Your task to perform on an android device: Open eBay Image 0: 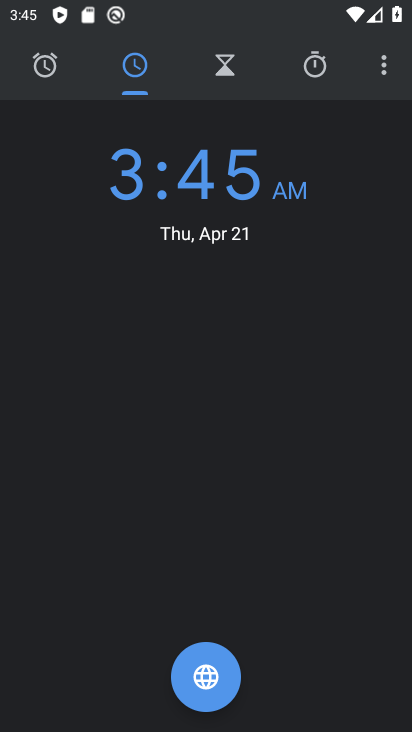
Step 0: press home button
Your task to perform on an android device: Open eBay Image 1: 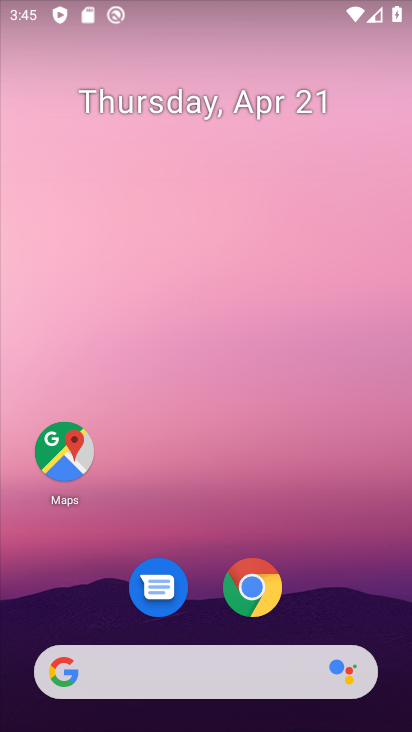
Step 1: drag from (236, 342) to (146, 46)
Your task to perform on an android device: Open eBay Image 2: 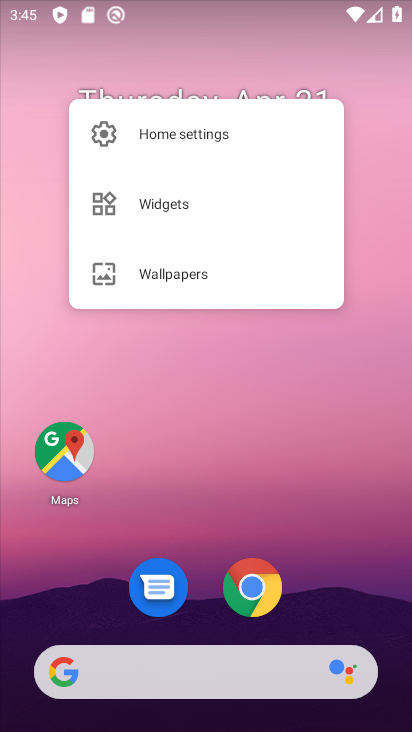
Step 2: click (257, 459)
Your task to perform on an android device: Open eBay Image 3: 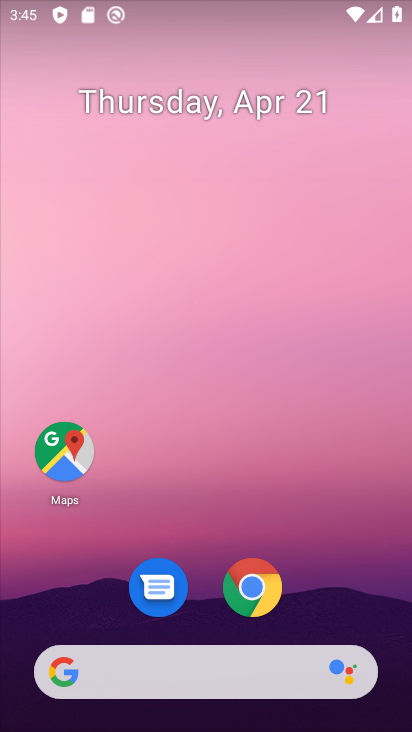
Step 3: drag from (394, 632) to (332, 49)
Your task to perform on an android device: Open eBay Image 4: 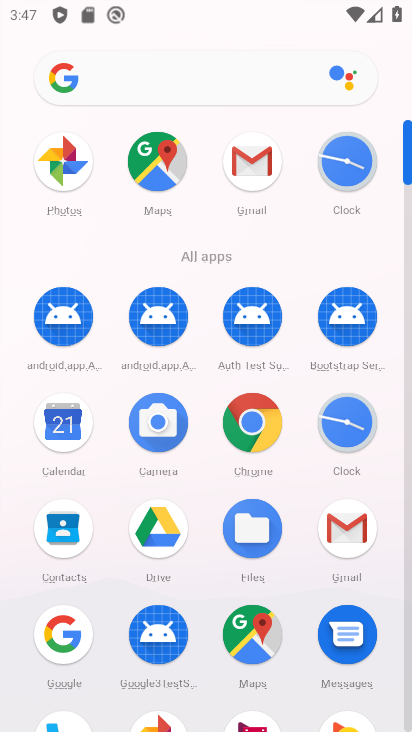
Step 4: click (255, 426)
Your task to perform on an android device: Open eBay Image 5: 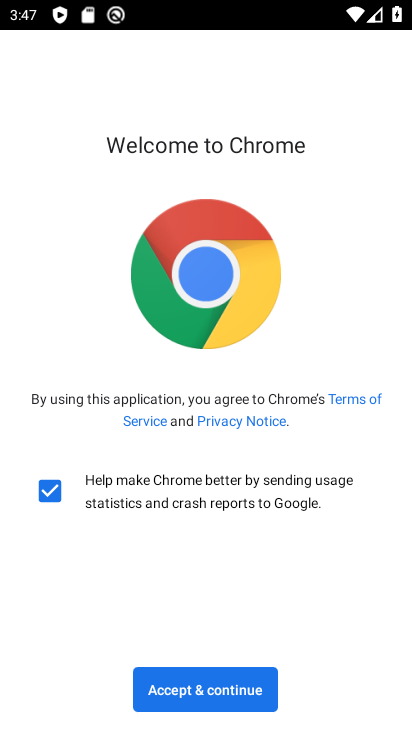
Step 5: click (218, 676)
Your task to perform on an android device: Open eBay Image 6: 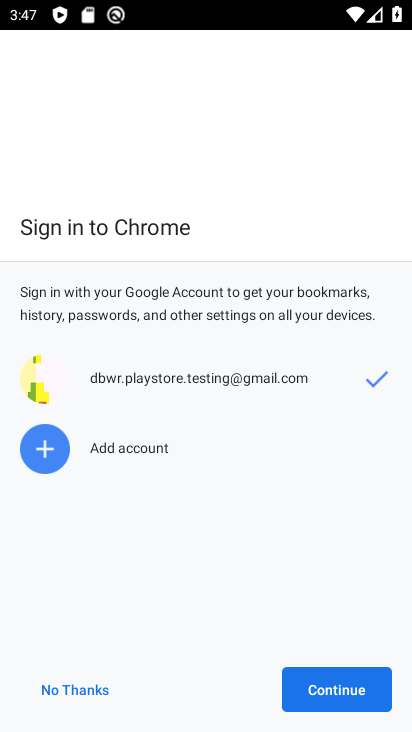
Step 6: click (327, 678)
Your task to perform on an android device: Open eBay Image 7: 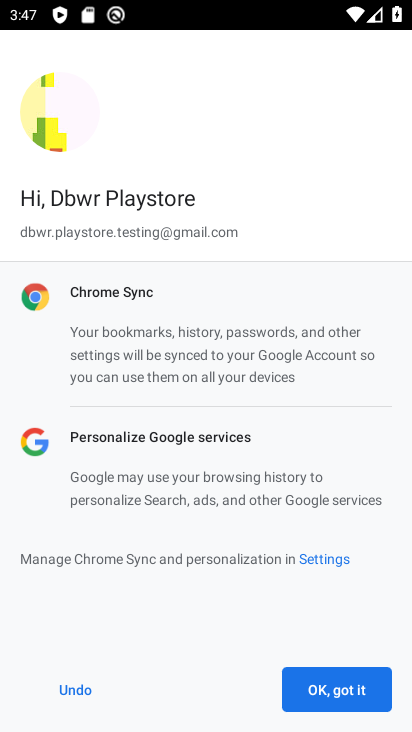
Step 7: click (346, 684)
Your task to perform on an android device: Open eBay Image 8: 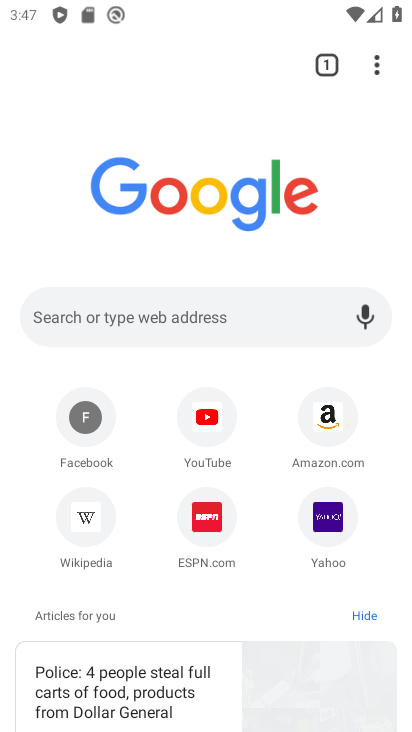
Step 8: click (180, 322)
Your task to perform on an android device: Open eBay Image 9: 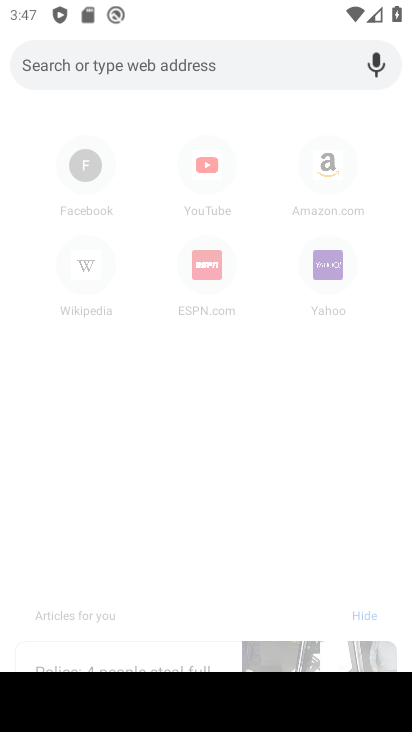
Step 9: type "eBay"
Your task to perform on an android device: Open eBay Image 10: 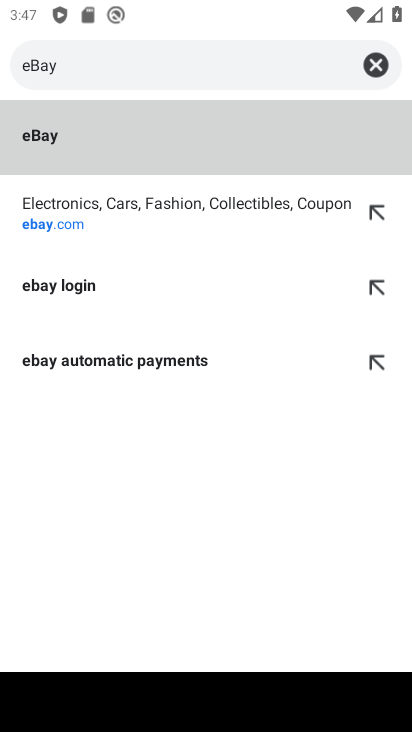
Step 10: click (37, 130)
Your task to perform on an android device: Open eBay Image 11: 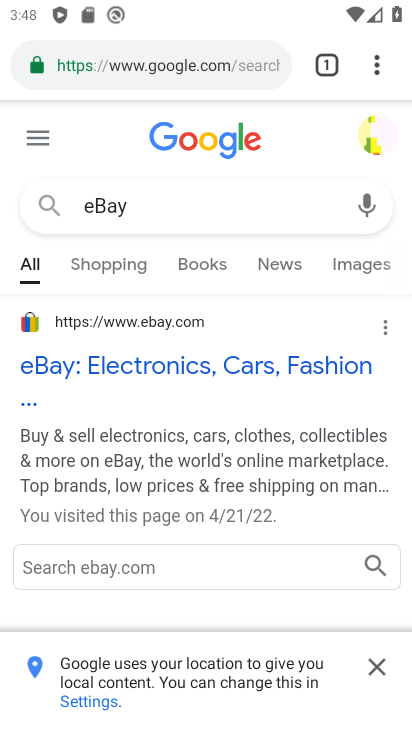
Step 11: click (128, 370)
Your task to perform on an android device: Open eBay Image 12: 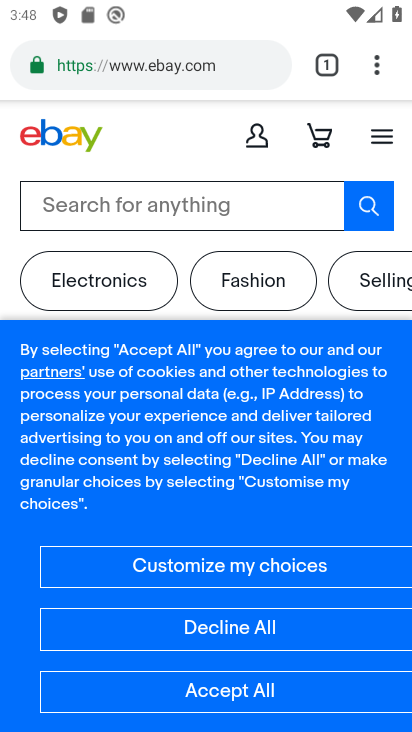
Step 12: task complete